Your task to perform on an android device: change your default location settings in chrome Image 0: 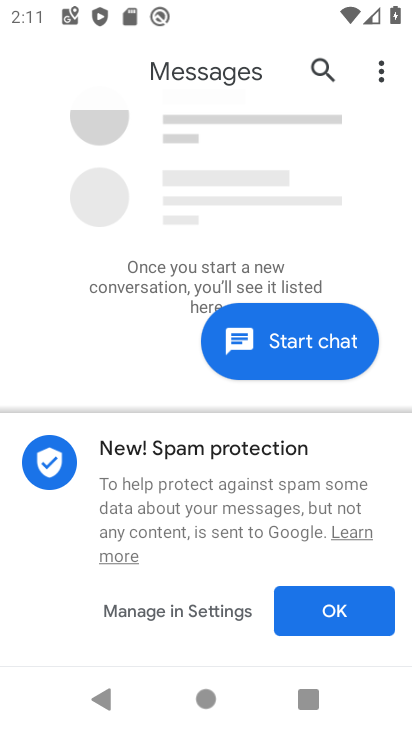
Step 0: click (325, 617)
Your task to perform on an android device: change your default location settings in chrome Image 1: 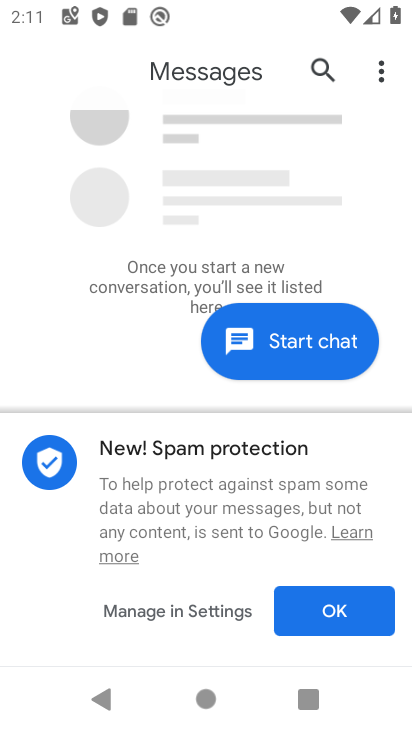
Step 1: click (336, 615)
Your task to perform on an android device: change your default location settings in chrome Image 2: 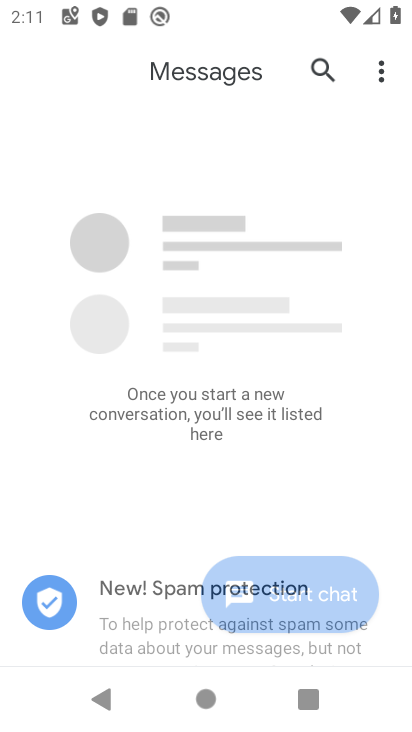
Step 2: click (342, 624)
Your task to perform on an android device: change your default location settings in chrome Image 3: 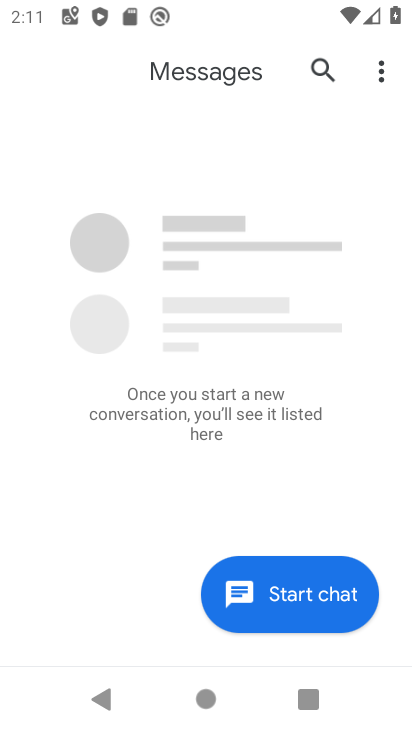
Step 3: click (338, 597)
Your task to perform on an android device: change your default location settings in chrome Image 4: 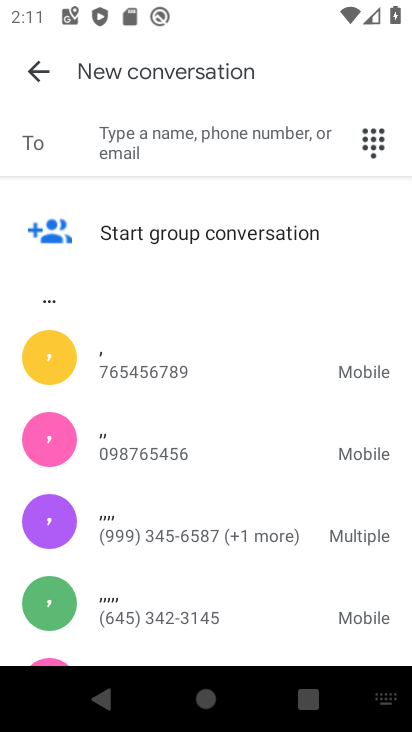
Step 4: press back button
Your task to perform on an android device: change your default location settings in chrome Image 5: 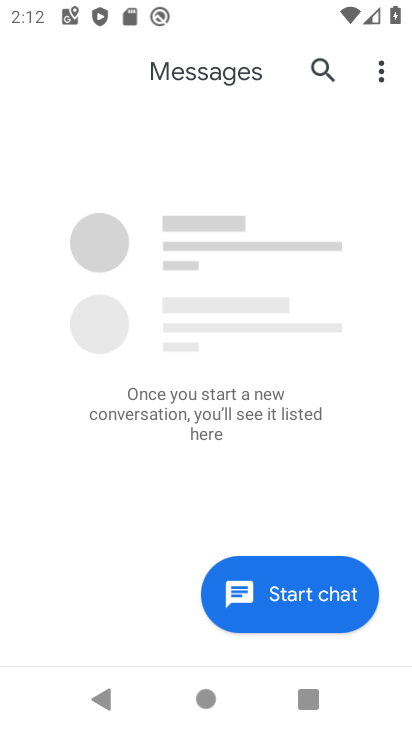
Step 5: press home button
Your task to perform on an android device: change your default location settings in chrome Image 6: 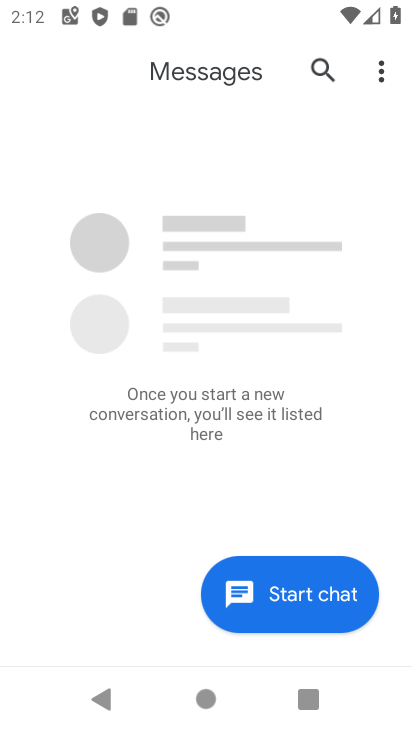
Step 6: press home button
Your task to perform on an android device: change your default location settings in chrome Image 7: 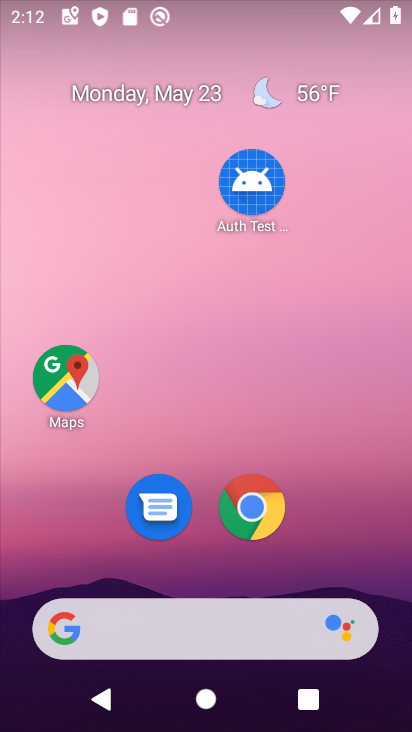
Step 7: drag from (209, 294) to (183, 185)
Your task to perform on an android device: change your default location settings in chrome Image 8: 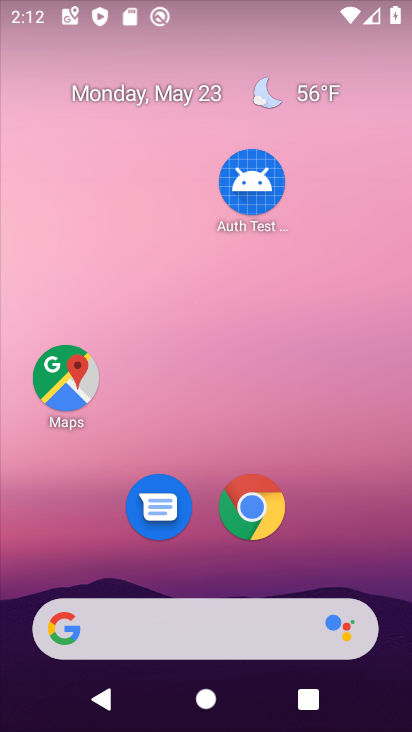
Step 8: drag from (243, 673) to (173, 127)
Your task to perform on an android device: change your default location settings in chrome Image 9: 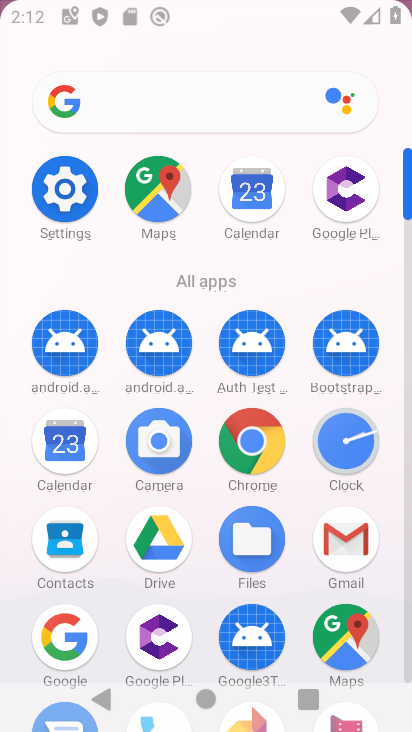
Step 9: drag from (229, 534) to (175, 170)
Your task to perform on an android device: change your default location settings in chrome Image 10: 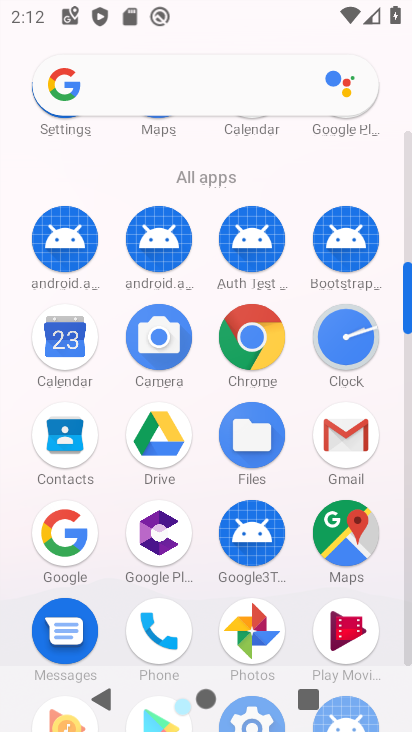
Step 10: click (250, 341)
Your task to perform on an android device: change your default location settings in chrome Image 11: 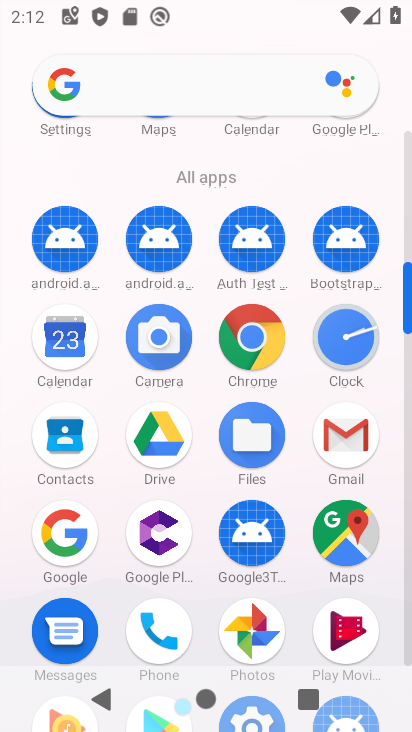
Step 11: click (250, 341)
Your task to perform on an android device: change your default location settings in chrome Image 12: 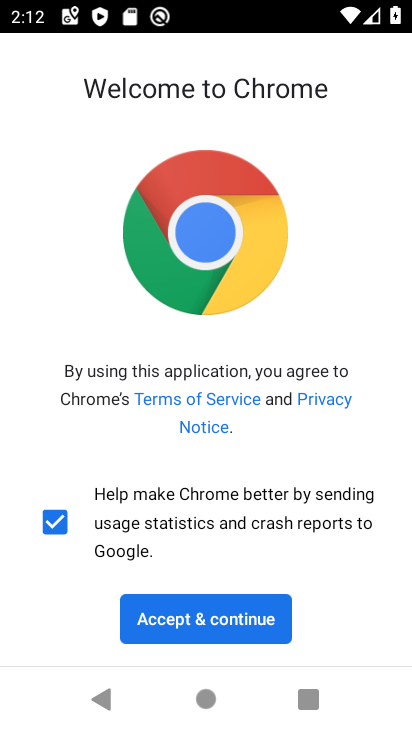
Step 12: click (203, 628)
Your task to perform on an android device: change your default location settings in chrome Image 13: 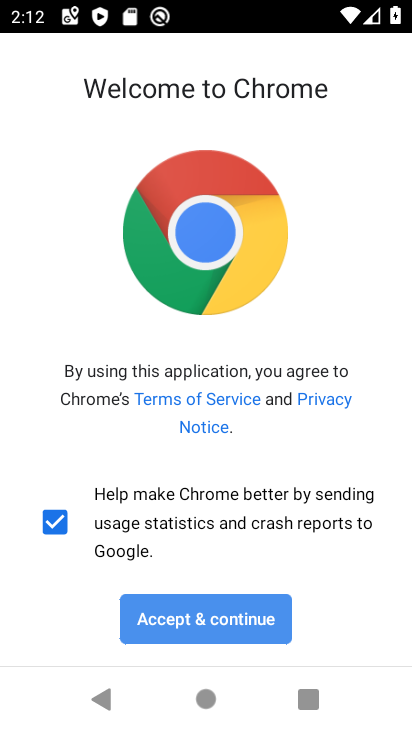
Step 13: click (214, 615)
Your task to perform on an android device: change your default location settings in chrome Image 14: 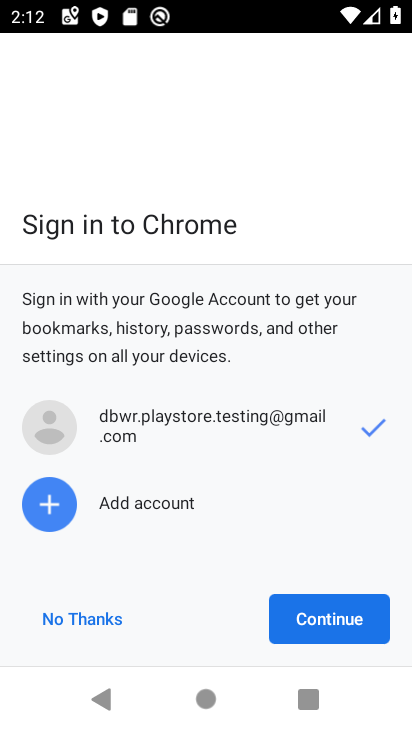
Step 14: click (214, 615)
Your task to perform on an android device: change your default location settings in chrome Image 15: 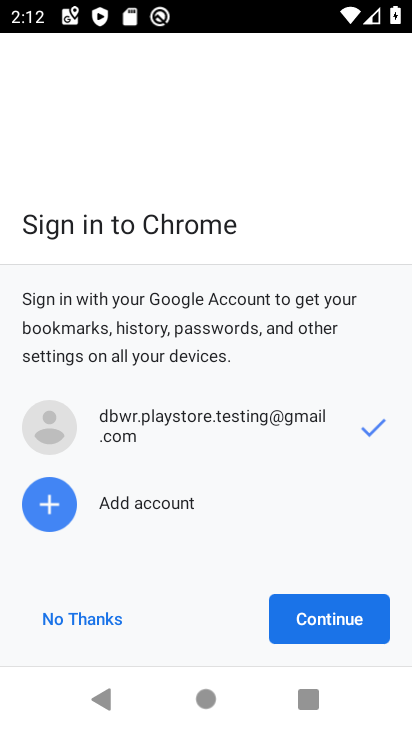
Step 15: click (215, 614)
Your task to perform on an android device: change your default location settings in chrome Image 16: 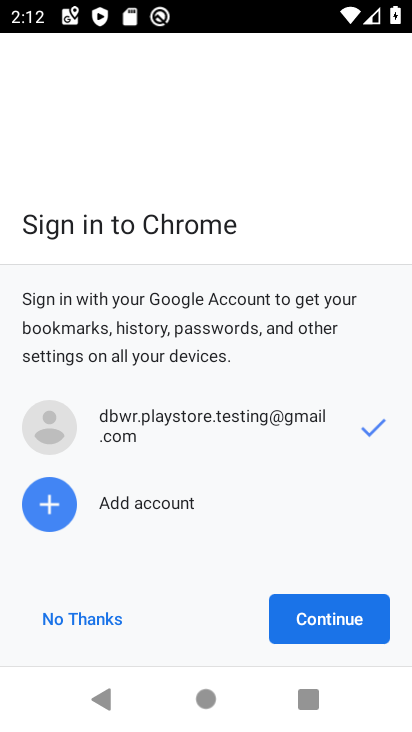
Step 16: click (346, 611)
Your task to perform on an android device: change your default location settings in chrome Image 17: 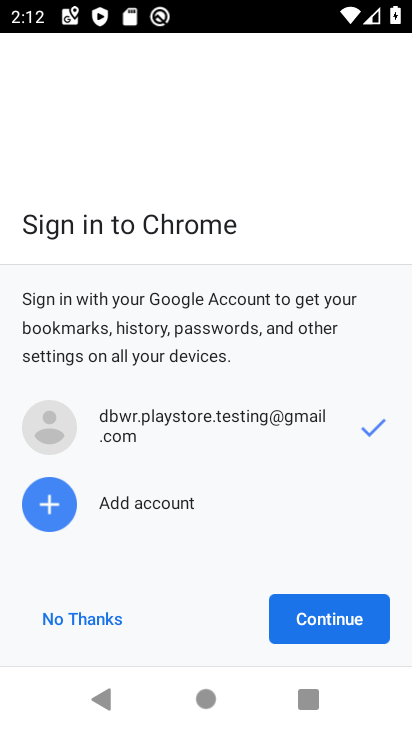
Step 17: drag from (345, 611) to (324, 638)
Your task to perform on an android device: change your default location settings in chrome Image 18: 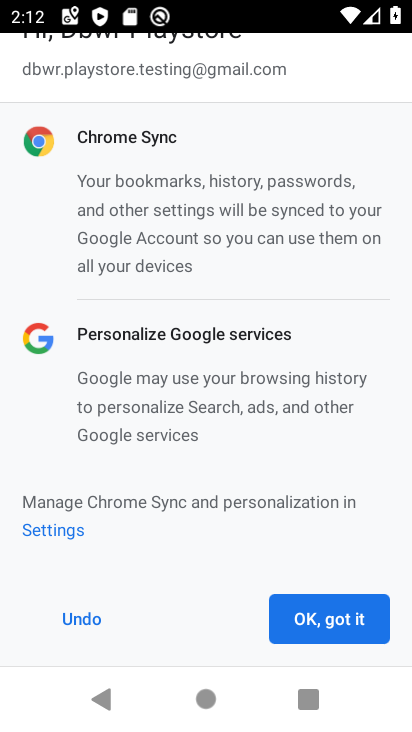
Step 18: click (339, 610)
Your task to perform on an android device: change your default location settings in chrome Image 19: 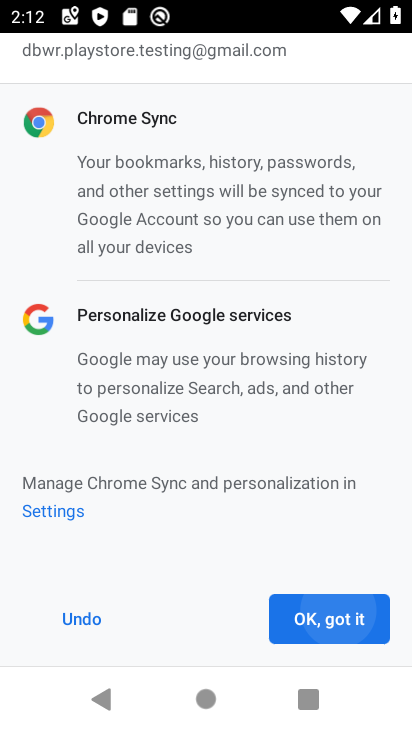
Step 19: click (339, 610)
Your task to perform on an android device: change your default location settings in chrome Image 20: 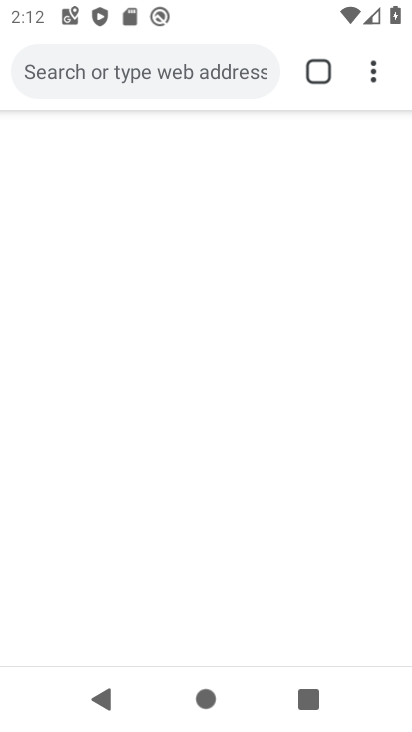
Step 20: click (345, 618)
Your task to perform on an android device: change your default location settings in chrome Image 21: 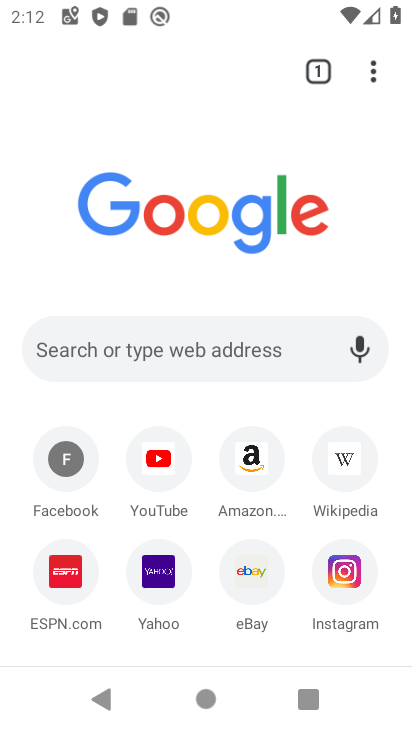
Step 21: drag from (372, 74) to (104, 505)
Your task to perform on an android device: change your default location settings in chrome Image 22: 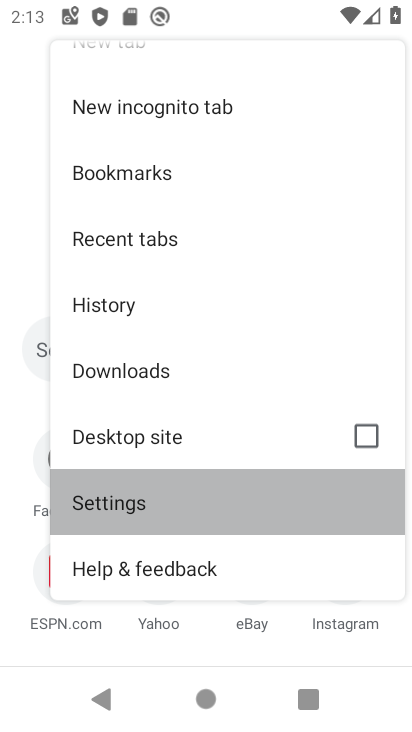
Step 22: click (104, 505)
Your task to perform on an android device: change your default location settings in chrome Image 23: 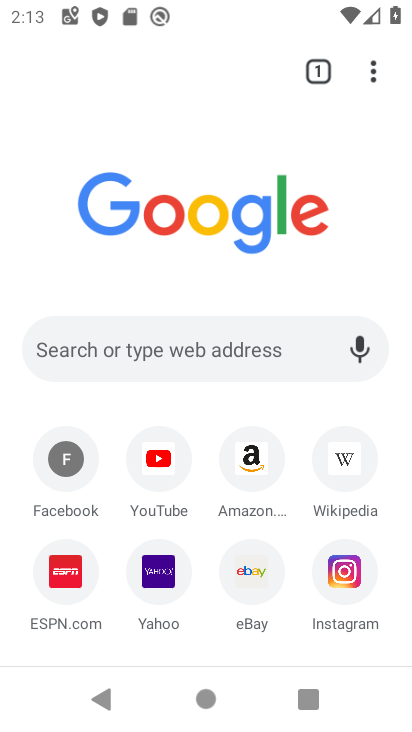
Step 23: click (104, 505)
Your task to perform on an android device: change your default location settings in chrome Image 24: 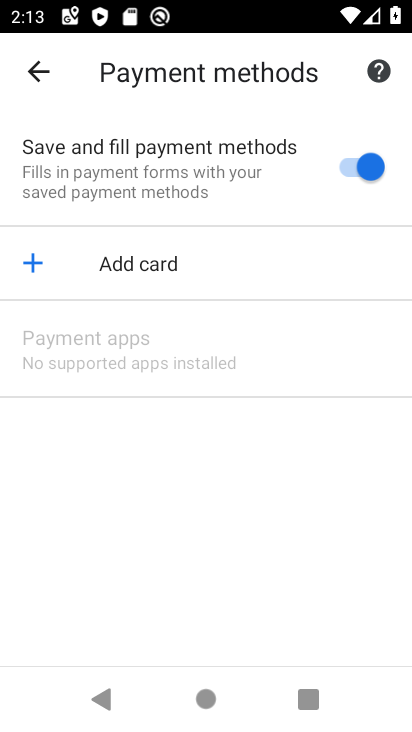
Step 24: click (34, 68)
Your task to perform on an android device: change your default location settings in chrome Image 25: 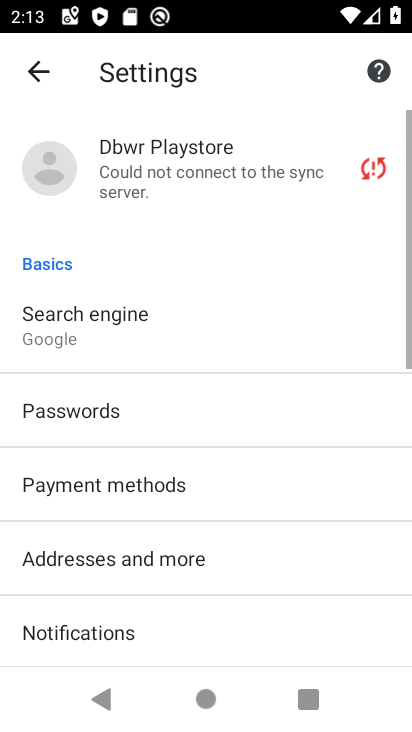
Step 25: drag from (176, 519) to (97, 32)
Your task to perform on an android device: change your default location settings in chrome Image 26: 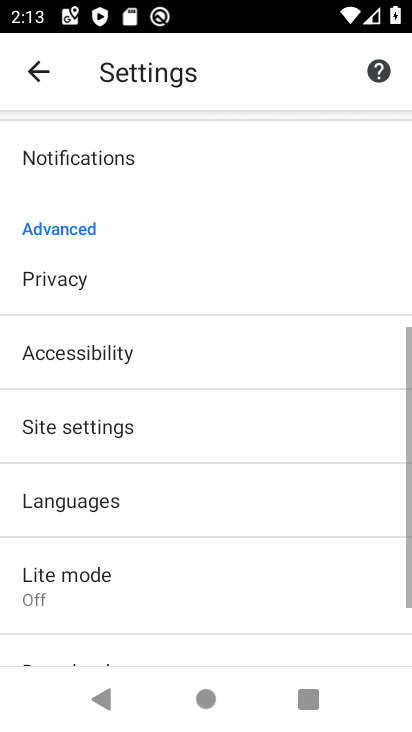
Step 26: drag from (254, 457) to (251, 103)
Your task to perform on an android device: change your default location settings in chrome Image 27: 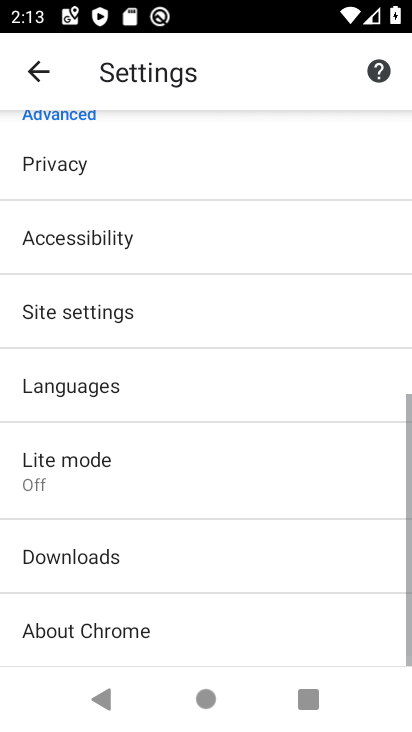
Step 27: drag from (200, 420) to (174, 137)
Your task to perform on an android device: change your default location settings in chrome Image 28: 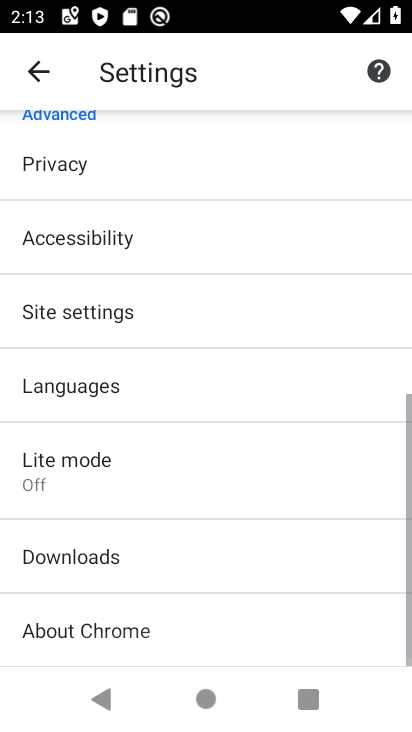
Step 28: drag from (187, 509) to (295, 37)
Your task to perform on an android device: change your default location settings in chrome Image 29: 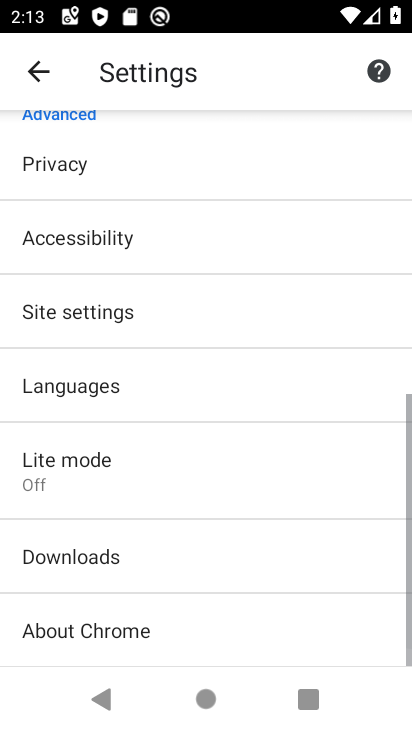
Step 29: drag from (105, 413) to (82, 199)
Your task to perform on an android device: change your default location settings in chrome Image 30: 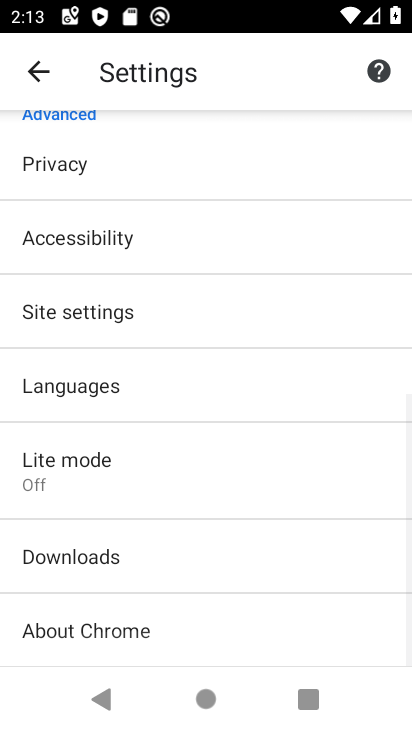
Step 30: drag from (163, 535) to (89, 100)
Your task to perform on an android device: change your default location settings in chrome Image 31: 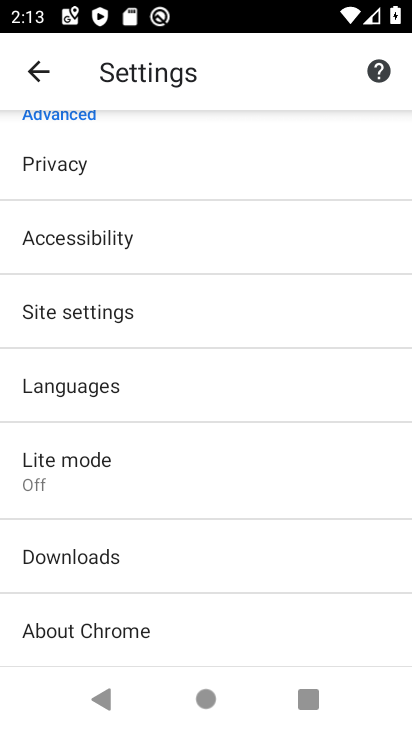
Step 31: drag from (122, 371) to (127, 114)
Your task to perform on an android device: change your default location settings in chrome Image 32: 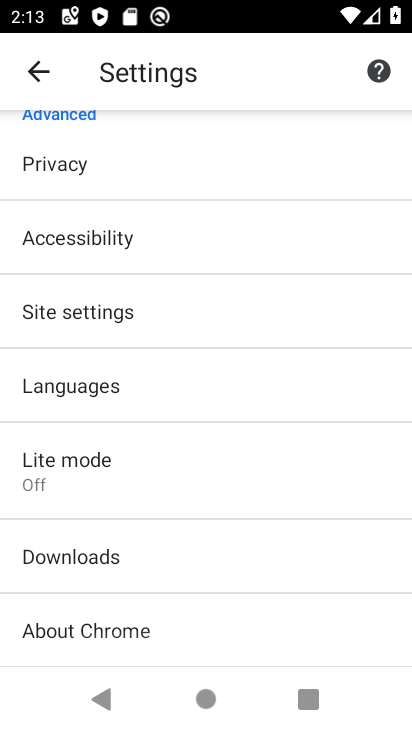
Step 32: drag from (139, 463) to (138, 46)
Your task to perform on an android device: change your default location settings in chrome Image 33: 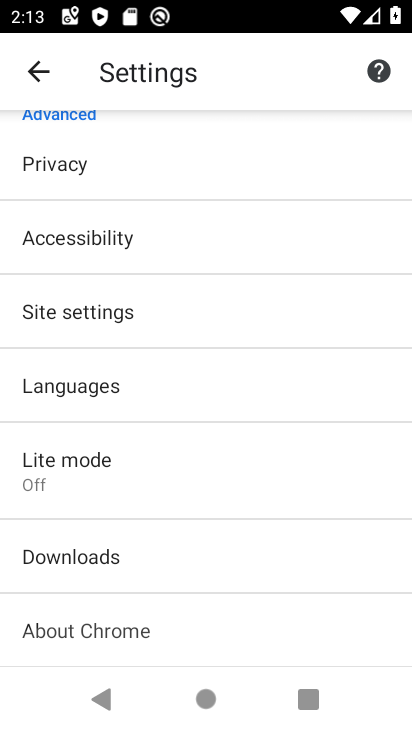
Step 33: drag from (157, 570) to (151, 180)
Your task to perform on an android device: change your default location settings in chrome Image 34: 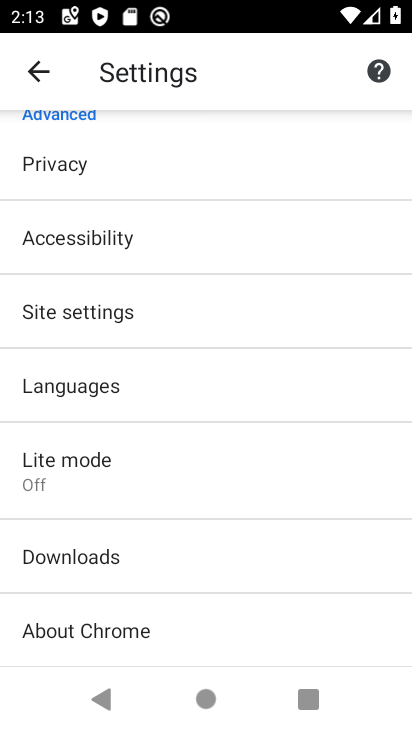
Step 34: drag from (90, 469) to (48, 83)
Your task to perform on an android device: change your default location settings in chrome Image 35: 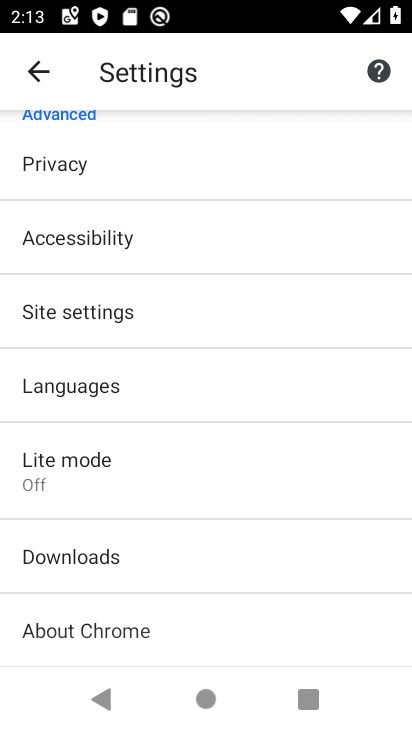
Step 35: drag from (100, 374) to (58, 122)
Your task to perform on an android device: change your default location settings in chrome Image 36: 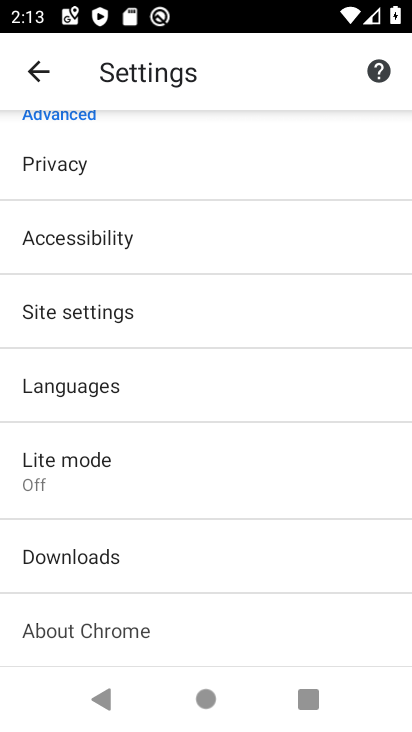
Step 36: drag from (101, 417) to (90, 135)
Your task to perform on an android device: change your default location settings in chrome Image 37: 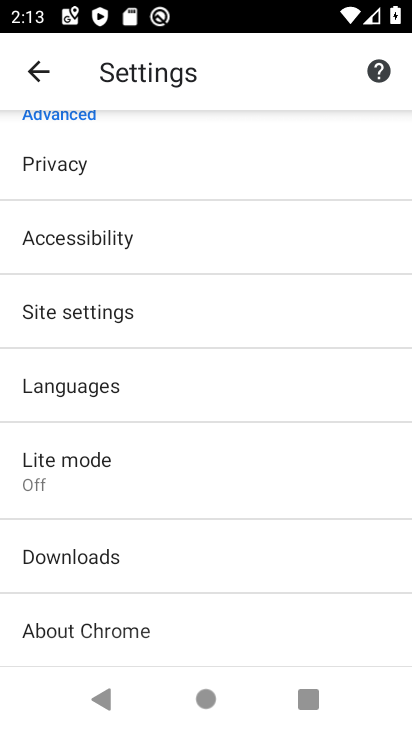
Step 37: drag from (105, 429) to (92, 131)
Your task to perform on an android device: change your default location settings in chrome Image 38: 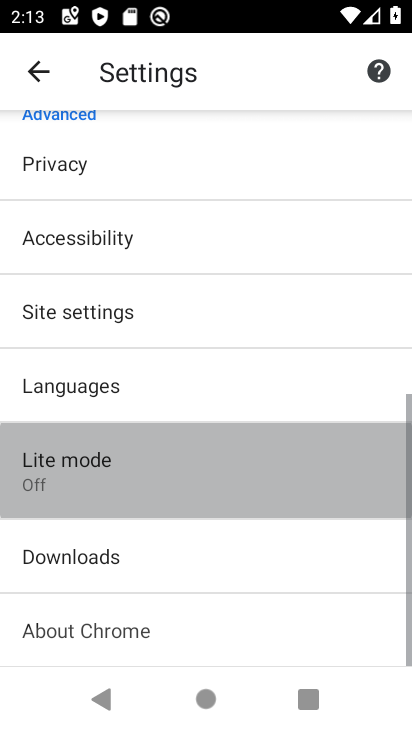
Step 38: drag from (74, 164) to (94, 240)
Your task to perform on an android device: change your default location settings in chrome Image 39: 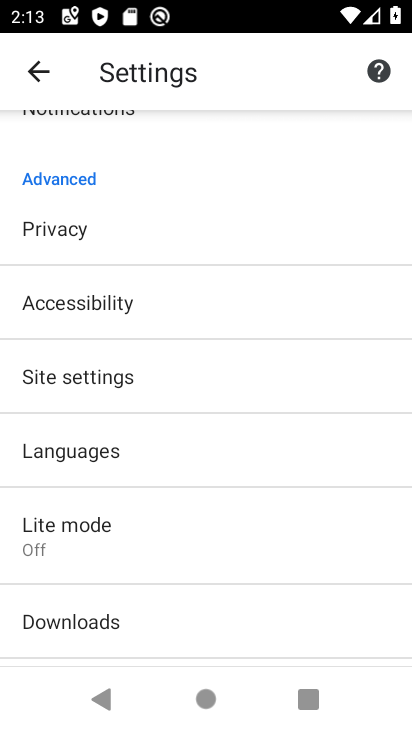
Step 39: drag from (83, 493) to (71, 264)
Your task to perform on an android device: change your default location settings in chrome Image 40: 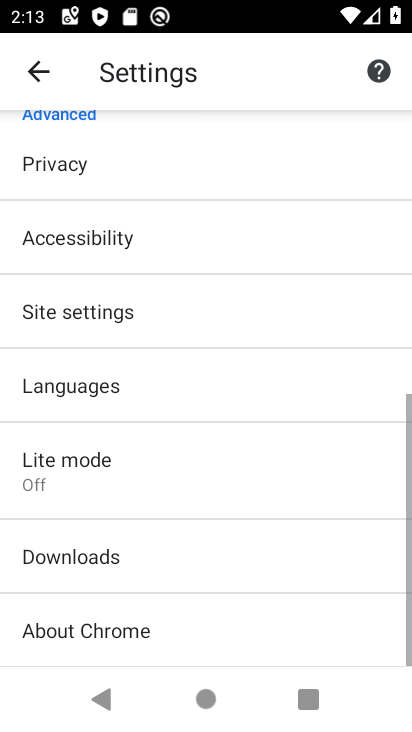
Step 40: drag from (108, 477) to (72, 213)
Your task to perform on an android device: change your default location settings in chrome Image 41: 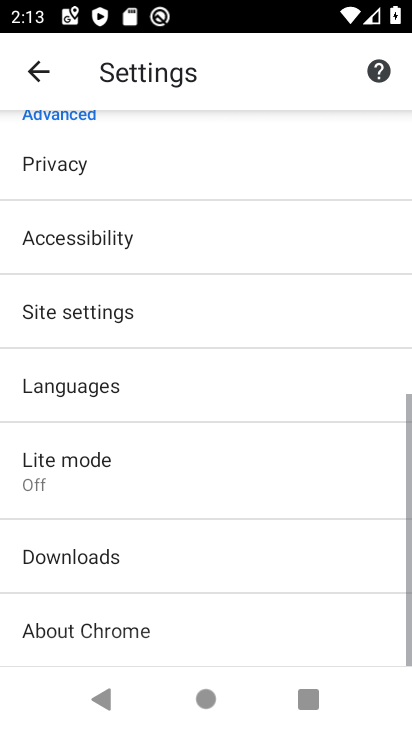
Step 41: drag from (107, 411) to (87, 212)
Your task to perform on an android device: change your default location settings in chrome Image 42: 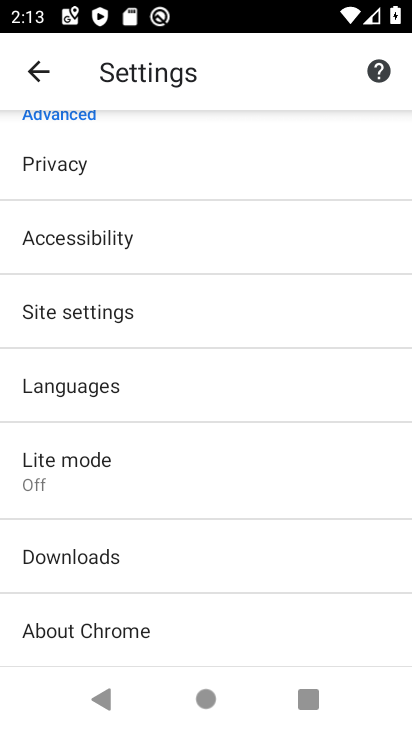
Step 42: click (82, 227)
Your task to perform on an android device: change your default location settings in chrome Image 43: 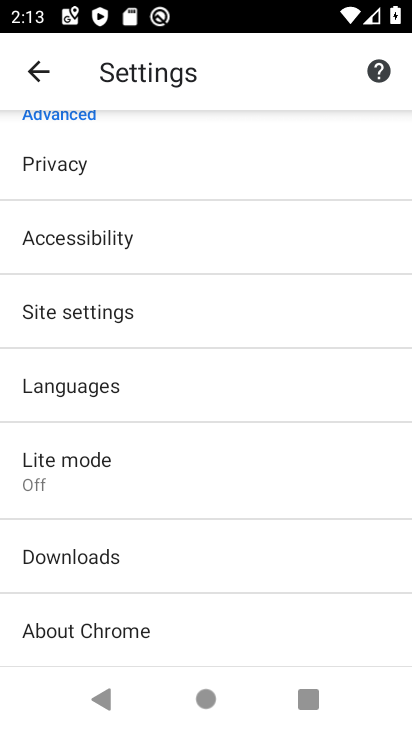
Step 43: drag from (79, 229) to (79, 597)
Your task to perform on an android device: change your default location settings in chrome Image 44: 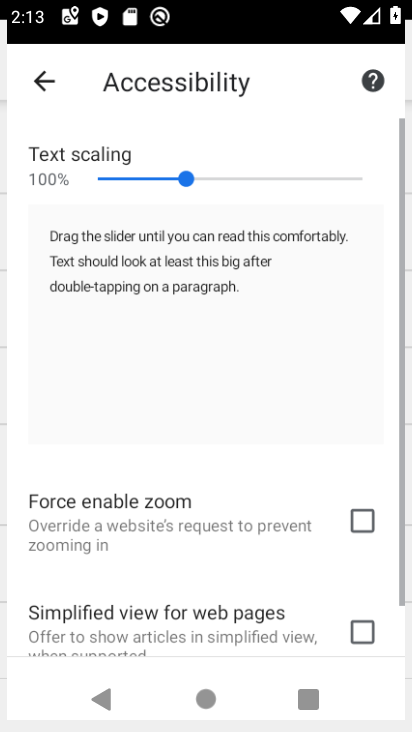
Step 44: drag from (80, 261) to (110, 466)
Your task to perform on an android device: change your default location settings in chrome Image 45: 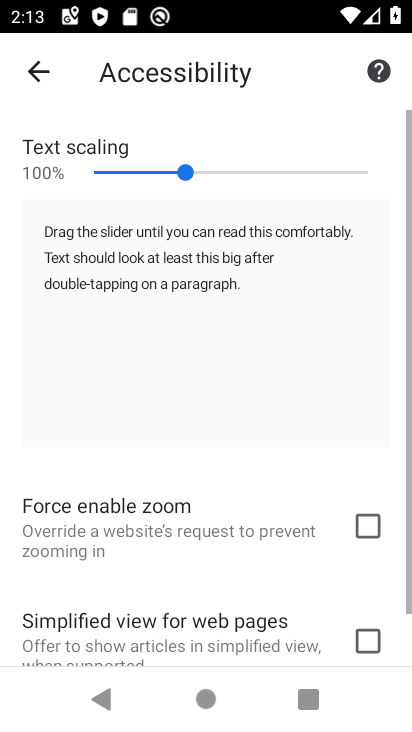
Step 45: drag from (112, 365) to (157, 684)
Your task to perform on an android device: change your default location settings in chrome Image 46: 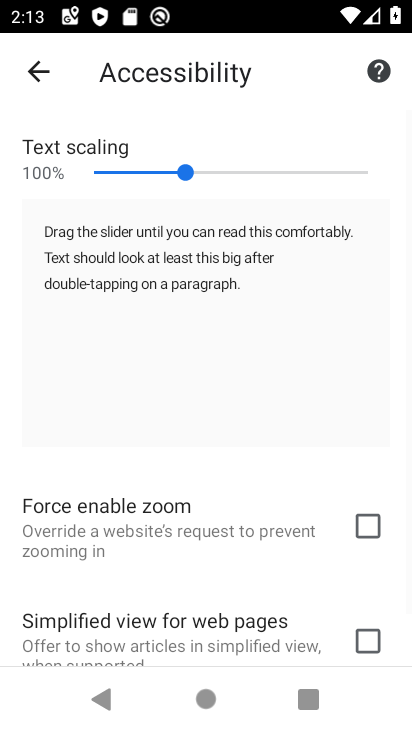
Step 46: click (36, 74)
Your task to perform on an android device: change your default location settings in chrome Image 47: 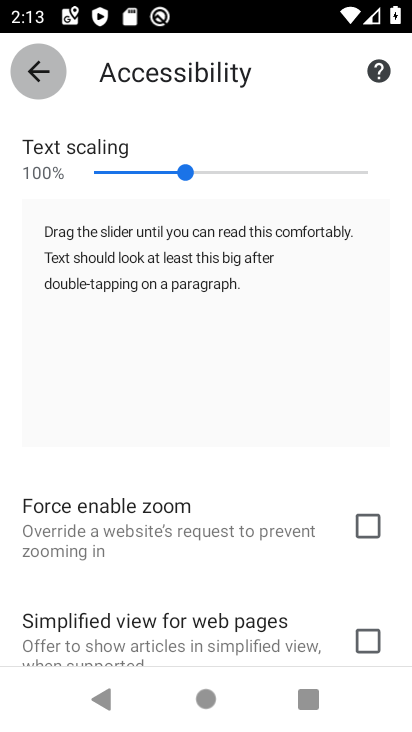
Step 47: click (36, 74)
Your task to perform on an android device: change your default location settings in chrome Image 48: 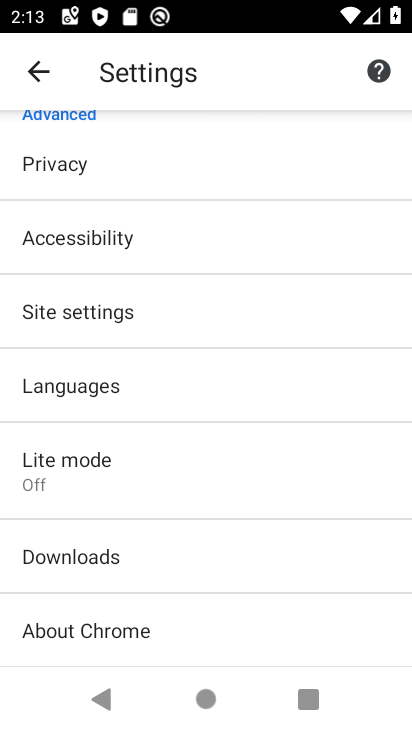
Step 48: drag from (88, 474) to (60, 153)
Your task to perform on an android device: change your default location settings in chrome Image 49: 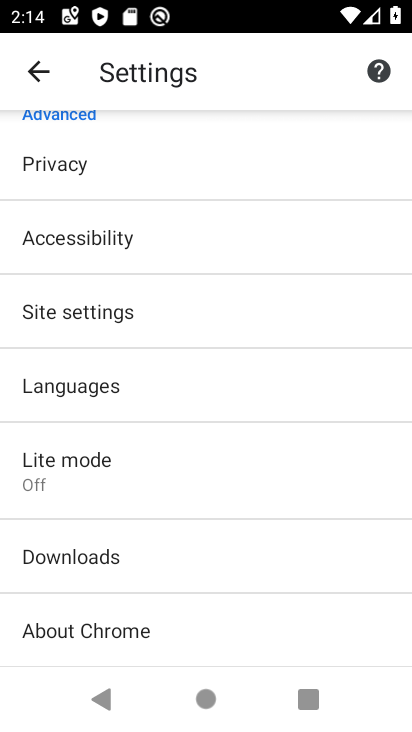
Step 49: click (59, 176)
Your task to perform on an android device: change your default location settings in chrome Image 50: 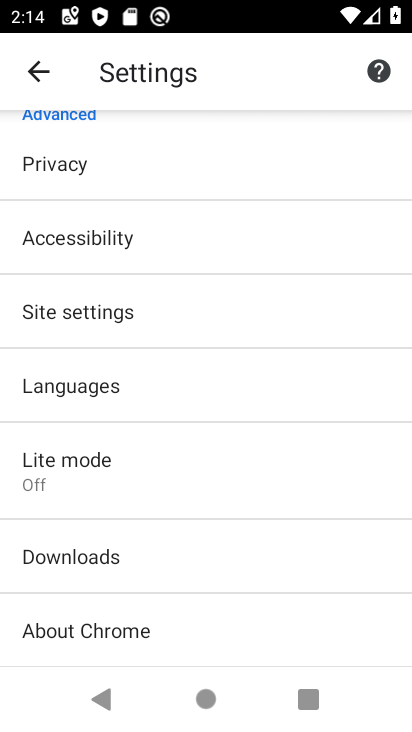
Step 50: drag from (139, 404) to (134, 191)
Your task to perform on an android device: change your default location settings in chrome Image 51: 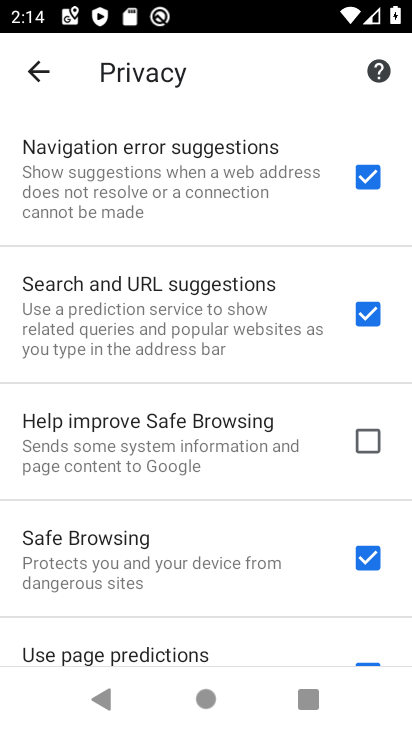
Step 51: drag from (135, 375) to (128, 181)
Your task to perform on an android device: change your default location settings in chrome Image 52: 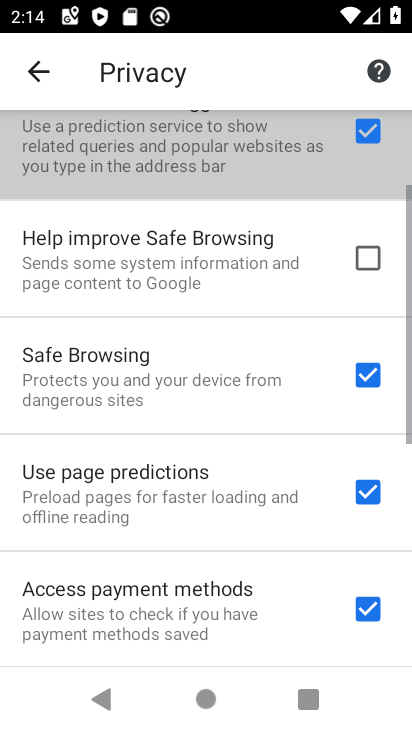
Step 52: drag from (135, 335) to (128, 91)
Your task to perform on an android device: change your default location settings in chrome Image 53: 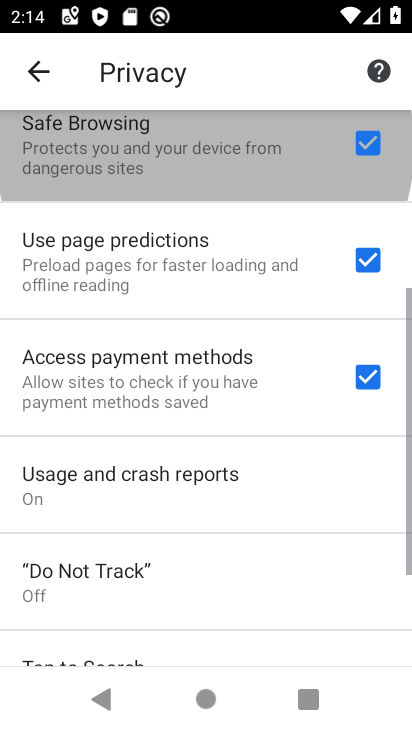
Step 53: drag from (149, 419) to (84, 99)
Your task to perform on an android device: change your default location settings in chrome Image 54: 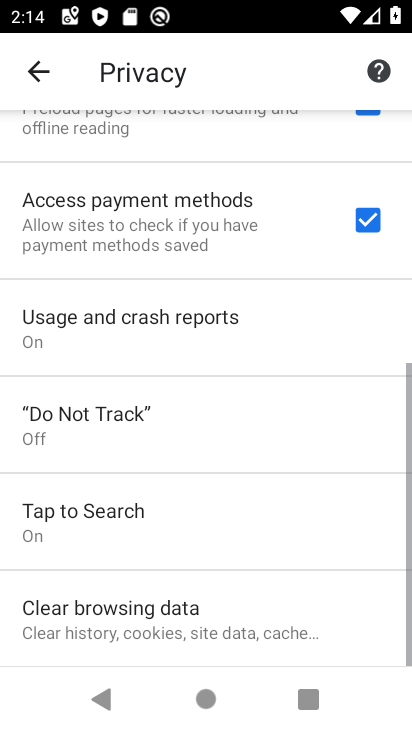
Step 54: drag from (114, 373) to (94, 131)
Your task to perform on an android device: change your default location settings in chrome Image 55: 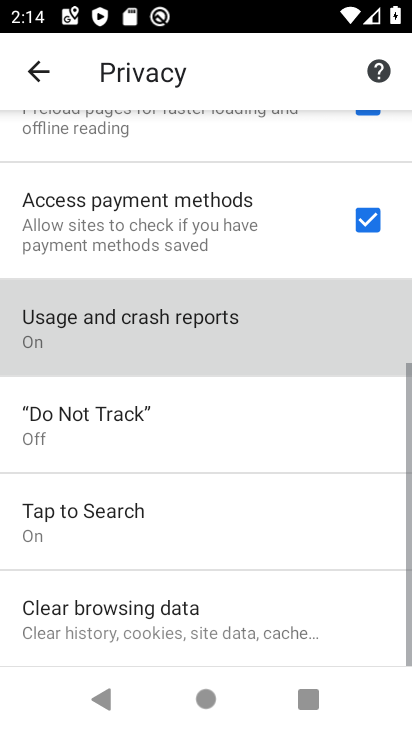
Step 55: drag from (151, 531) to (141, 162)
Your task to perform on an android device: change your default location settings in chrome Image 56: 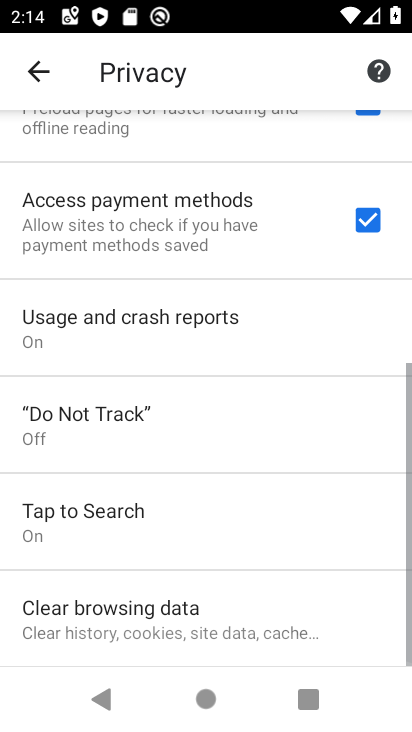
Step 56: drag from (171, 585) to (132, 265)
Your task to perform on an android device: change your default location settings in chrome Image 57: 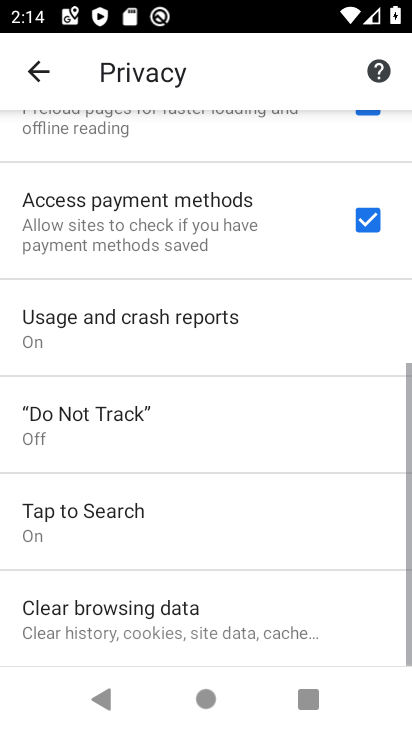
Step 57: drag from (171, 479) to (168, 193)
Your task to perform on an android device: change your default location settings in chrome Image 58: 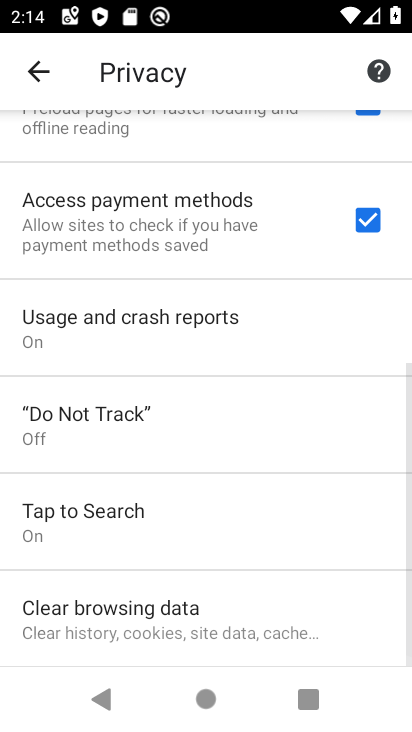
Step 58: drag from (175, 556) to (98, 166)
Your task to perform on an android device: change your default location settings in chrome Image 59: 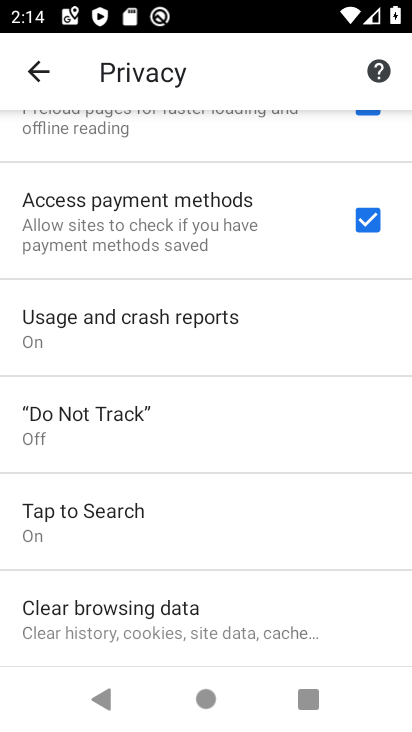
Step 59: drag from (65, 429) to (52, 173)
Your task to perform on an android device: change your default location settings in chrome Image 60: 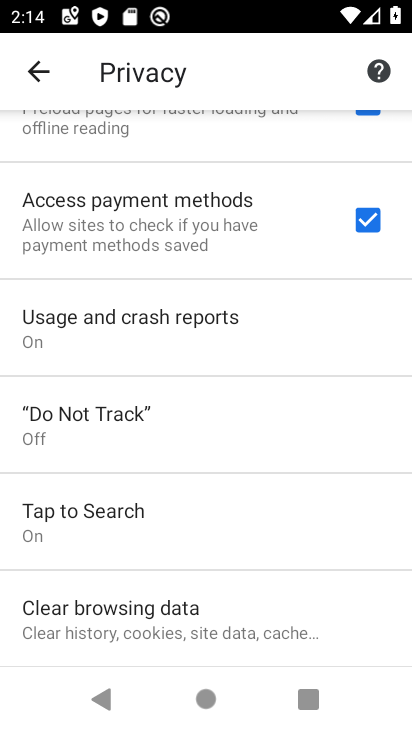
Step 60: click (26, 78)
Your task to perform on an android device: change your default location settings in chrome Image 61: 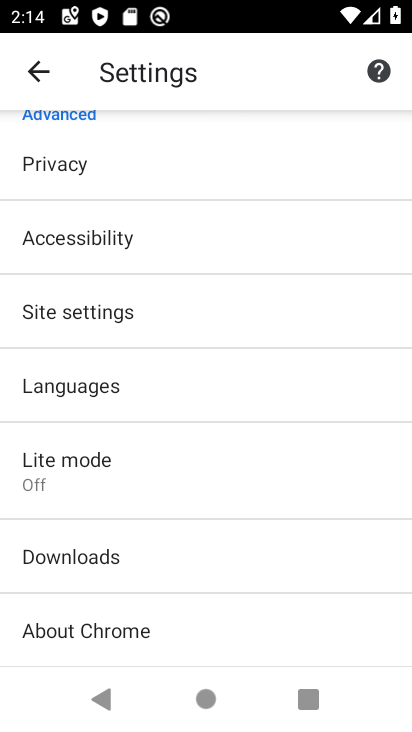
Step 61: click (73, 306)
Your task to perform on an android device: change your default location settings in chrome Image 62: 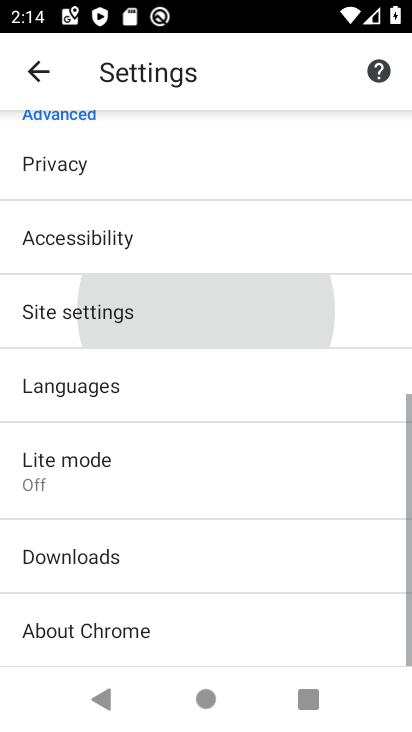
Step 62: click (73, 306)
Your task to perform on an android device: change your default location settings in chrome Image 63: 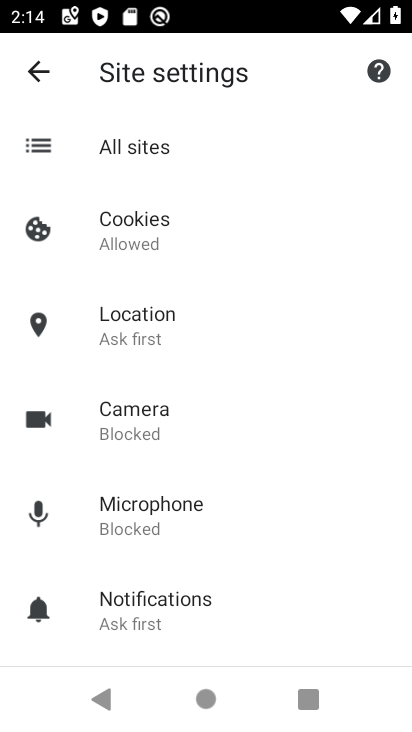
Step 63: click (129, 320)
Your task to perform on an android device: change your default location settings in chrome Image 64: 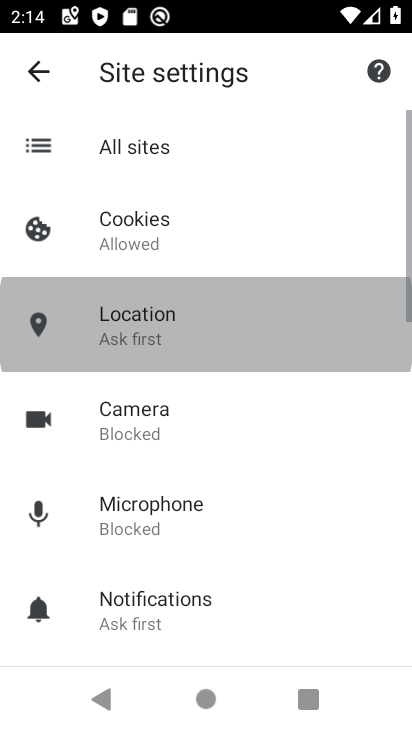
Step 64: click (131, 323)
Your task to perform on an android device: change your default location settings in chrome Image 65: 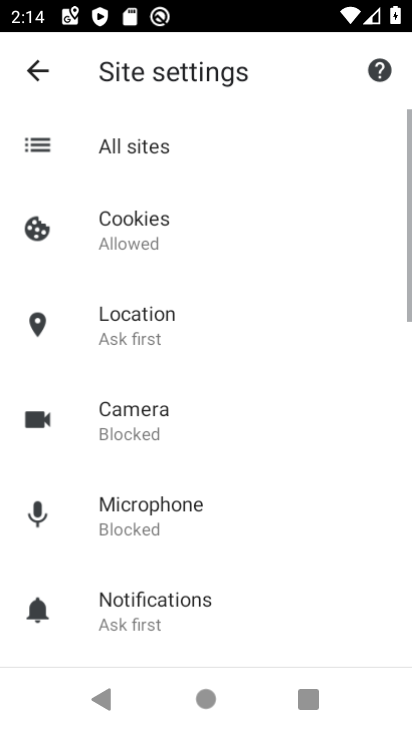
Step 65: click (132, 326)
Your task to perform on an android device: change your default location settings in chrome Image 66: 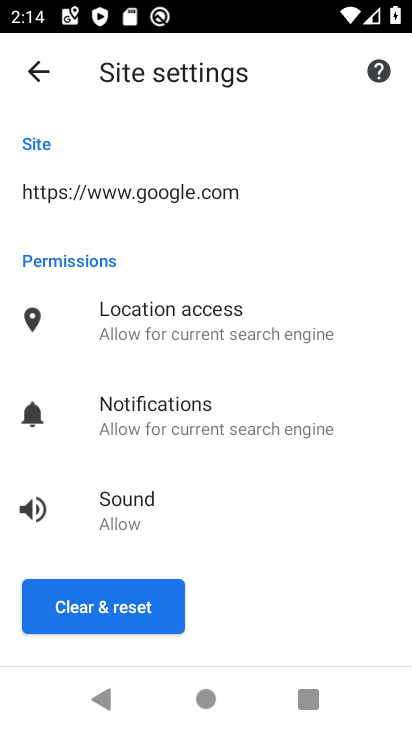
Step 66: click (105, 594)
Your task to perform on an android device: change your default location settings in chrome Image 67: 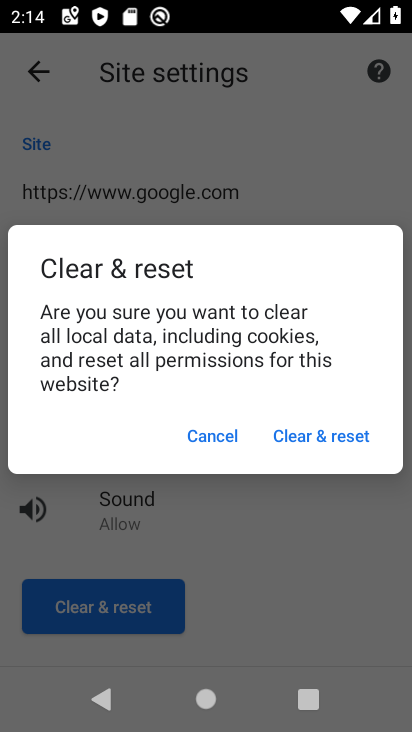
Step 67: click (212, 433)
Your task to perform on an android device: change your default location settings in chrome Image 68: 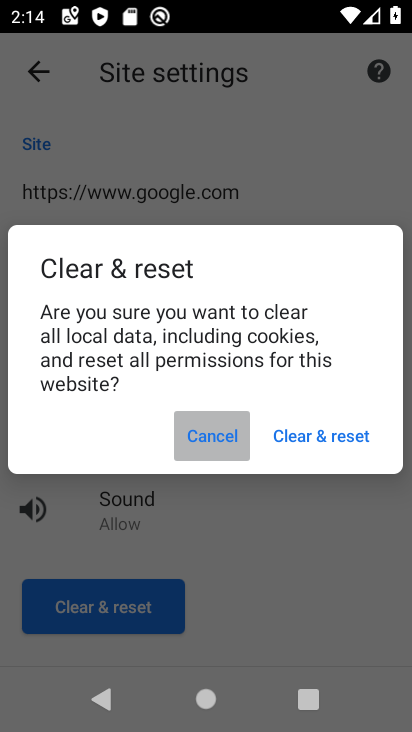
Step 68: click (212, 433)
Your task to perform on an android device: change your default location settings in chrome Image 69: 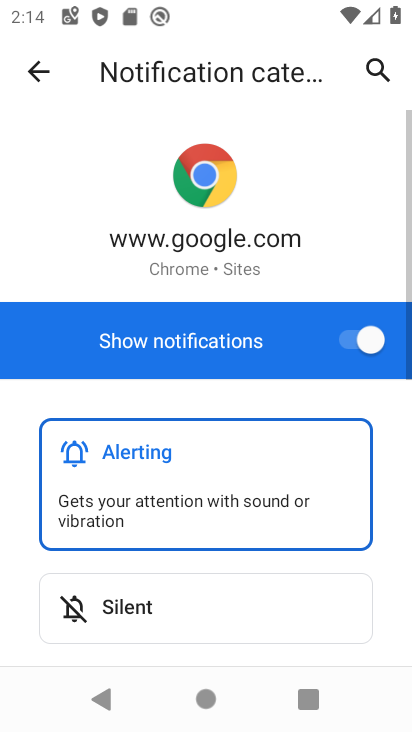
Step 69: click (40, 78)
Your task to perform on an android device: change your default location settings in chrome Image 70: 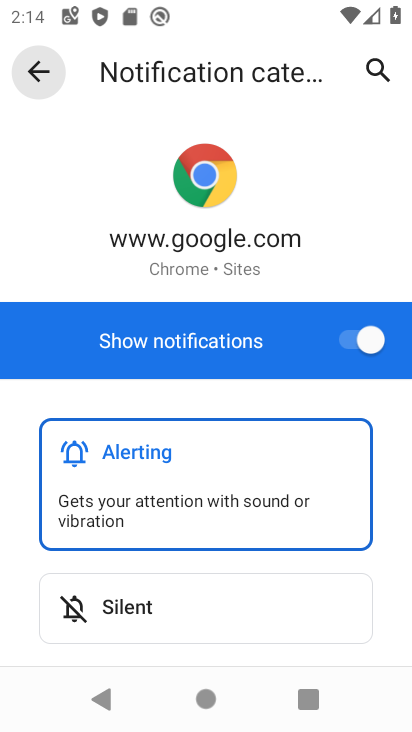
Step 70: click (40, 78)
Your task to perform on an android device: change your default location settings in chrome Image 71: 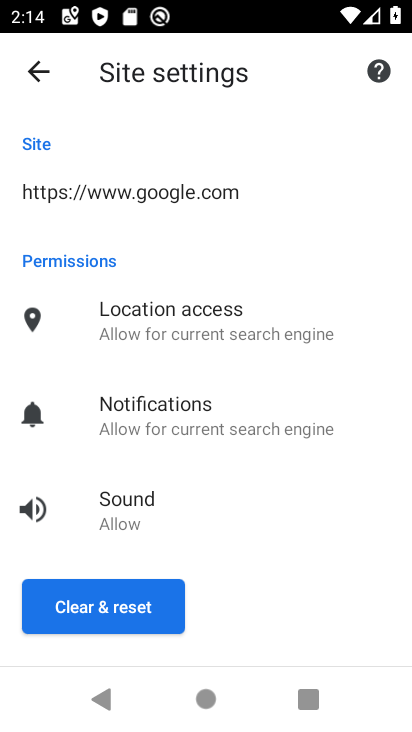
Step 71: click (187, 321)
Your task to perform on an android device: change your default location settings in chrome Image 72: 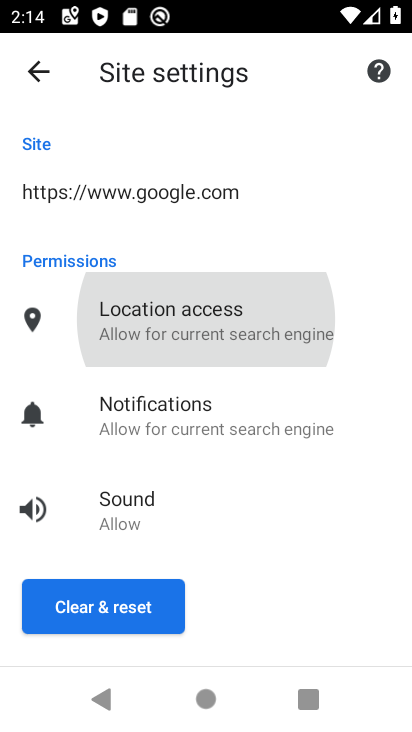
Step 72: click (186, 321)
Your task to perform on an android device: change your default location settings in chrome Image 73: 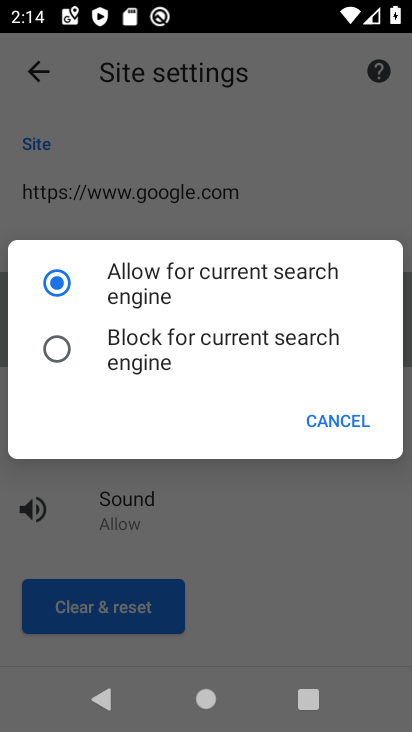
Step 73: click (185, 322)
Your task to perform on an android device: change your default location settings in chrome Image 74: 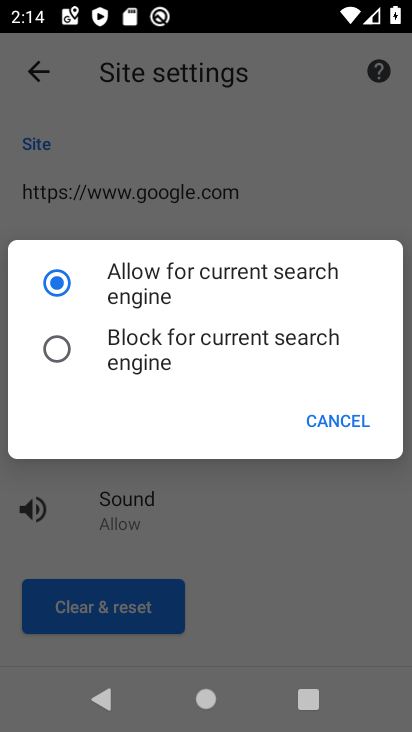
Step 74: click (185, 330)
Your task to perform on an android device: change your default location settings in chrome Image 75: 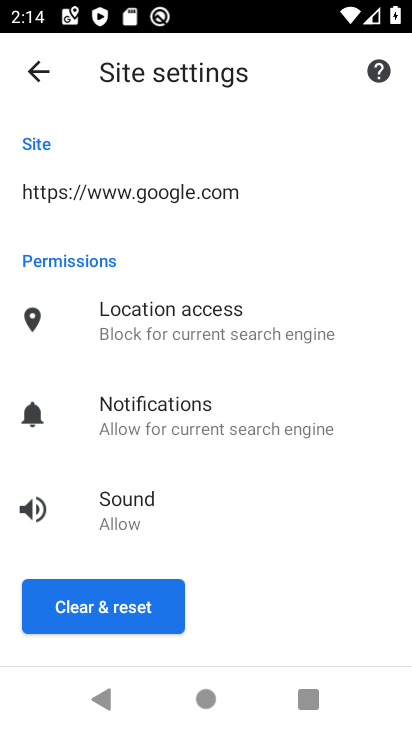
Step 75: click (326, 416)
Your task to perform on an android device: change your default location settings in chrome Image 76: 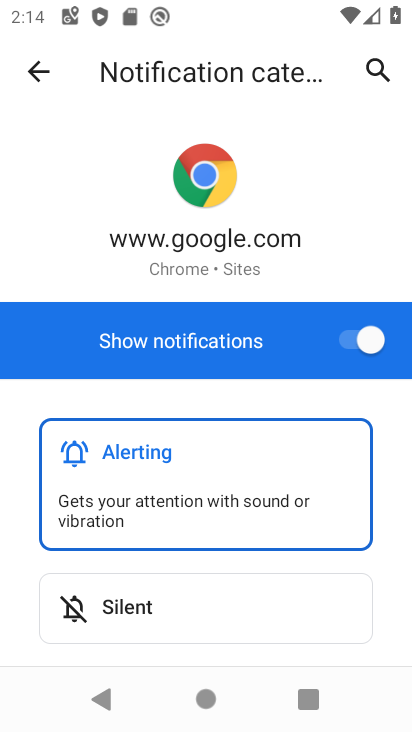
Step 76: task complete